Your task to perform on an android device: Go to display settings Image 0: 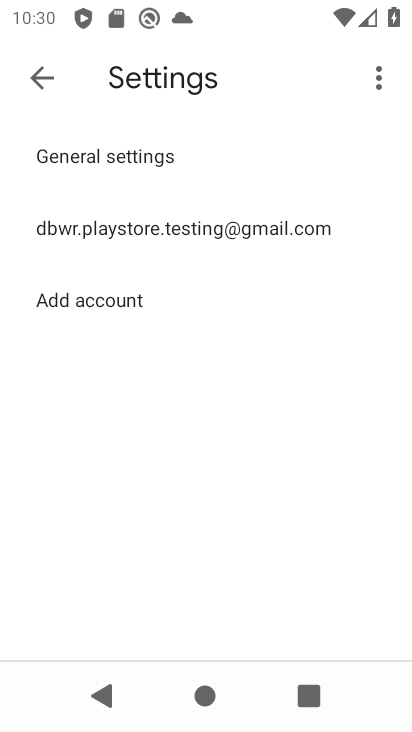
Step 0: press home button
Your task to perform on an android device: Go to display settings Image 1: 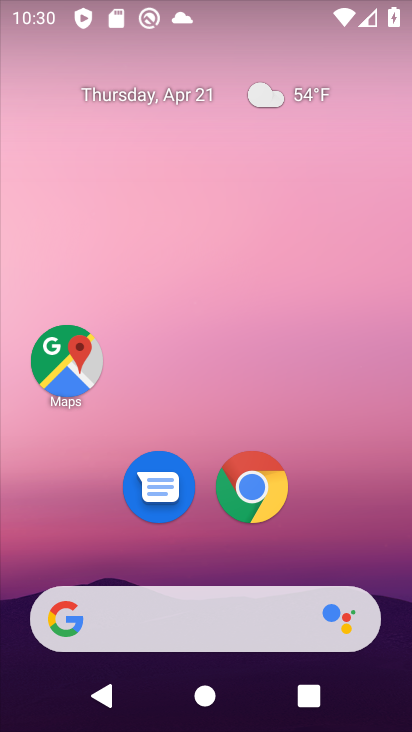
Step 1: drag from (331, 445) to (331, 93)
Your task to perform on an android device: Go to display settings Image 2: 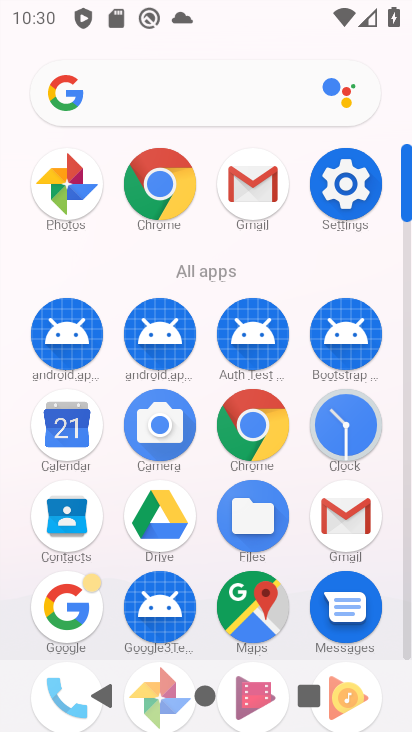
Step 2: click (373, 177)
Your task to perform on an android device: Go to display settings Image 3: 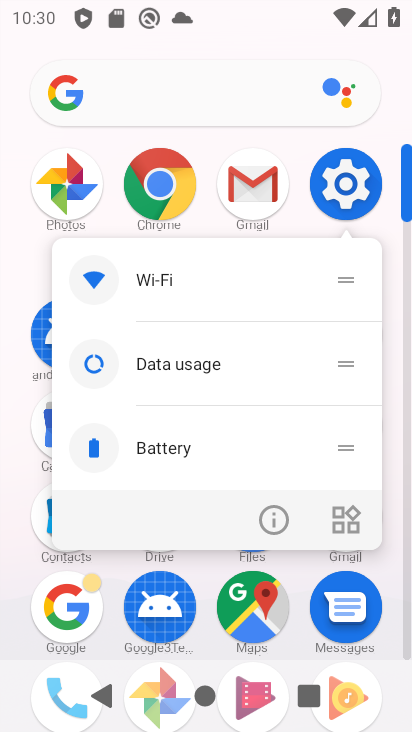
Step 3: click (345, 184)
Your task to perform on an android device: Go to display settings Image 4: 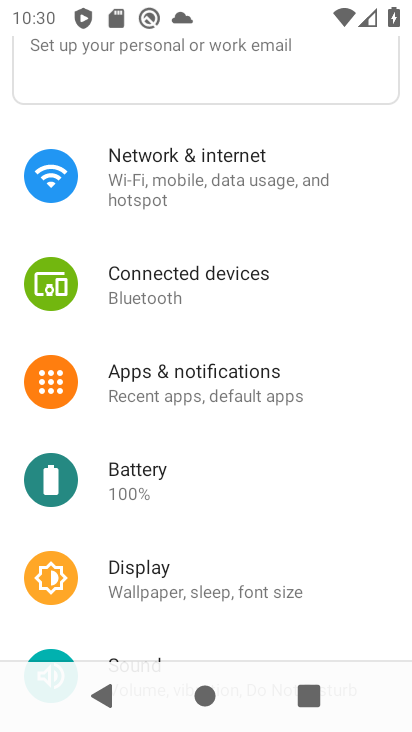
Step 4: drag from (302, 481) to (351, 276)
Your task to perform on an android device: Go to display settings Image 5: 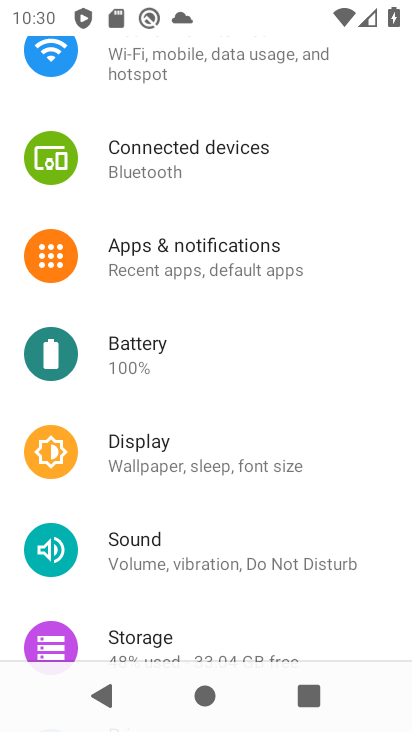
Step 5: click (221, 461)
Your task to perform on an android device: Go to display settings Image 6: 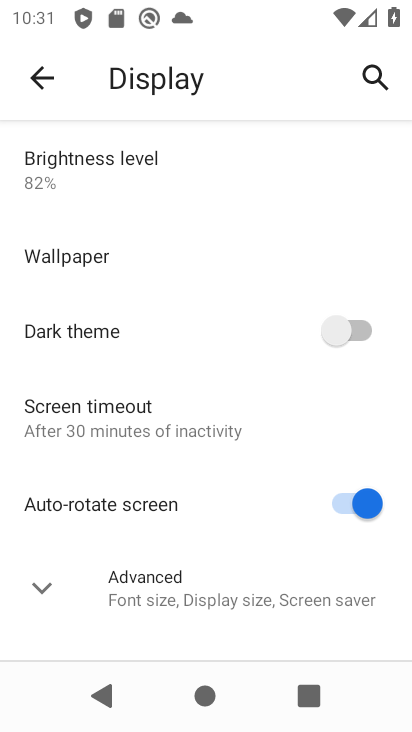
Step 6: task complete